Your task to perform on an android device: toggle improve location accuracy Image 0: 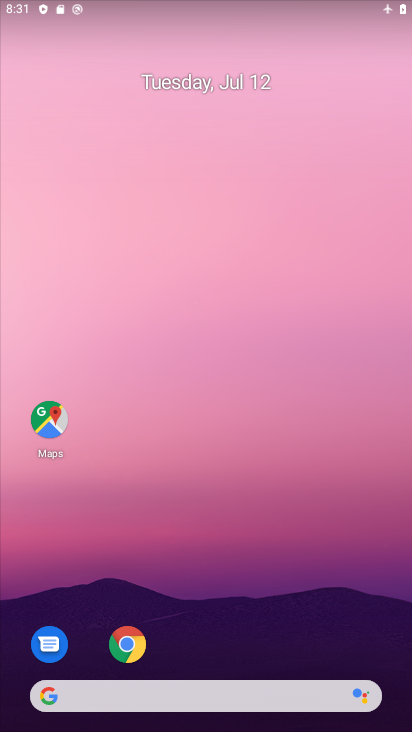
Step 0: drag from (198, 651) to (176, 225)
Your task to perform on an android device: toggle improve location accuracy Image 1: 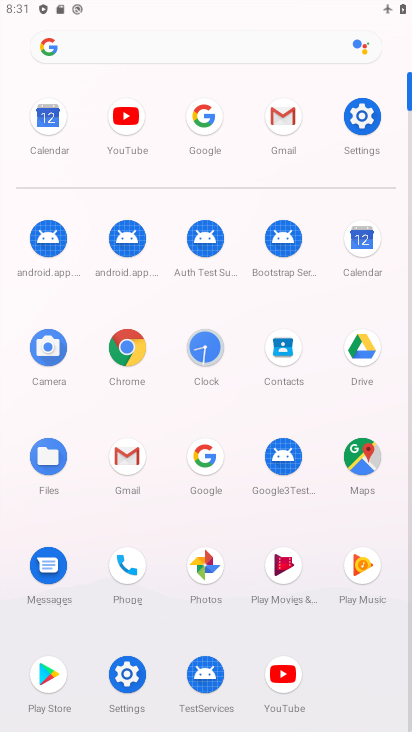
Step 1: click (359, 106)
Your task to perform on an android device: toggle improve location accuracy Image 2: 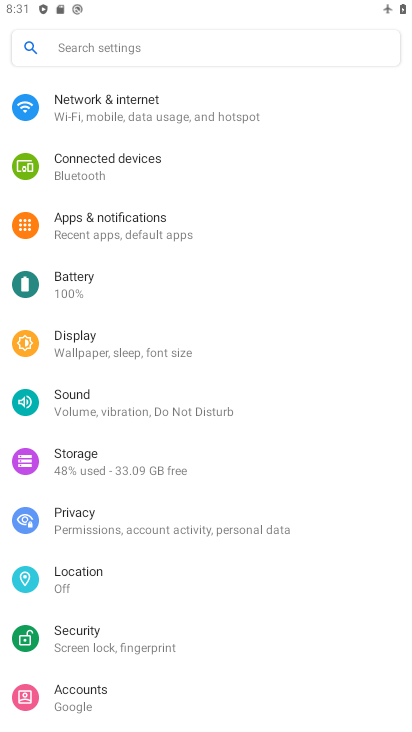
Step 2: click (107, 591)
Your task to perform on an android device: toggle improve location accuracy Image 3: 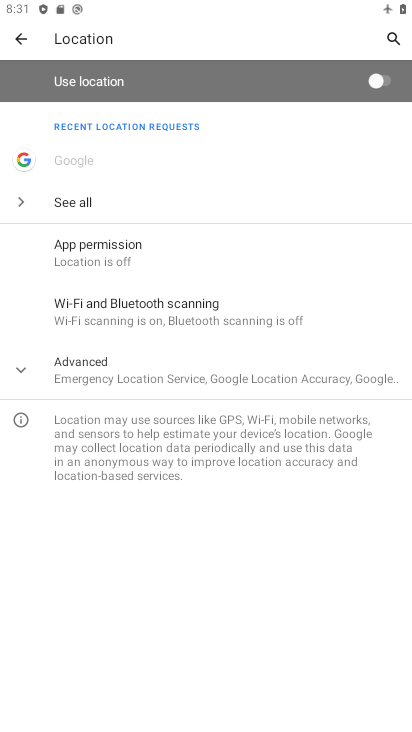
Step 3: click (133, 371)
Your task to perform on an android device: toggle improve location accuracy Image 4: 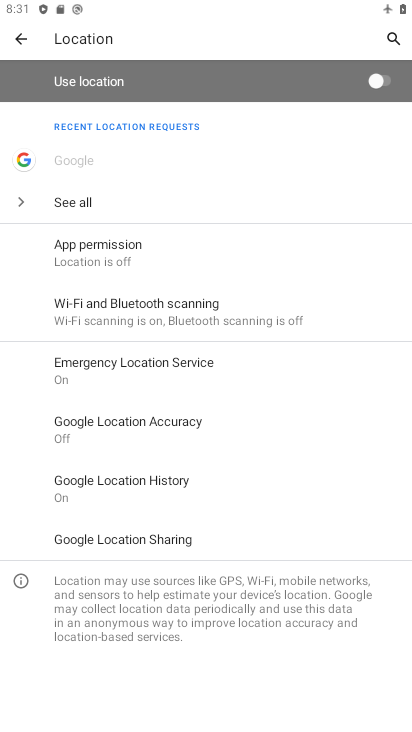
Step 4: click (187, 426)
Your task to perform on an android device: toggle improve location accuracy Image 5: 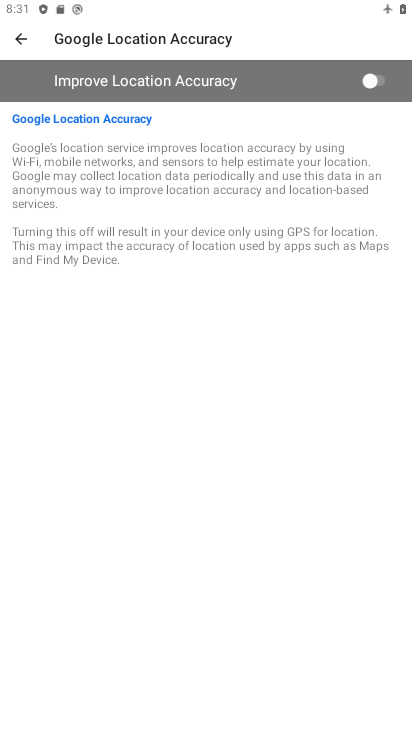
Step 5: click (373, 79)
Your task to perform on an android device: toggle improve location accuracy Image 6: 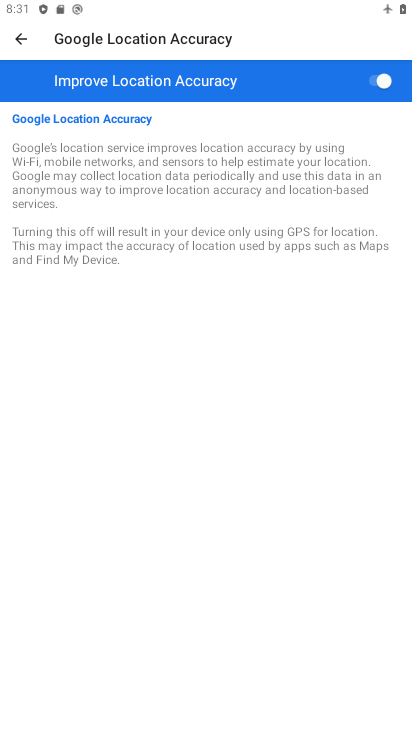
Step 6: task complete